Your task to perform on an android device: Search for "razer blade" on target, select the first entry, add it to the cart, then select checkout. Image 0: 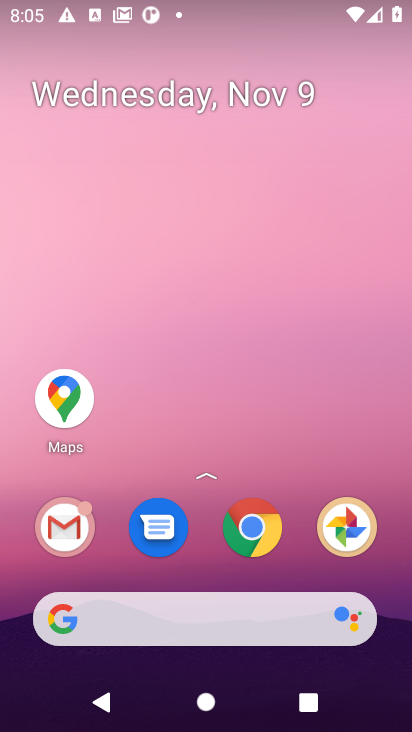
Step 0: click (254, 516)
Your task to perform on an android device: Search for "razer blade" on target, select the first entry, add it to the cart, then select checkout. Image 1: 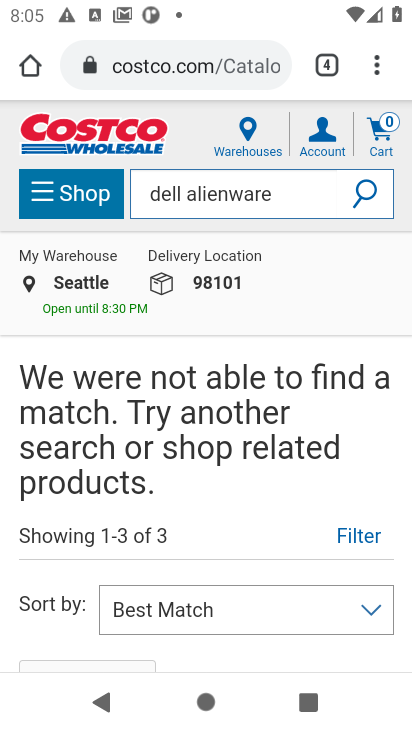
Step 1: click (200, 63)
Your task to perform on an android device: Search for "razer blade" on target, select the first entry, add it to the cart, then select checkout. Image 2: 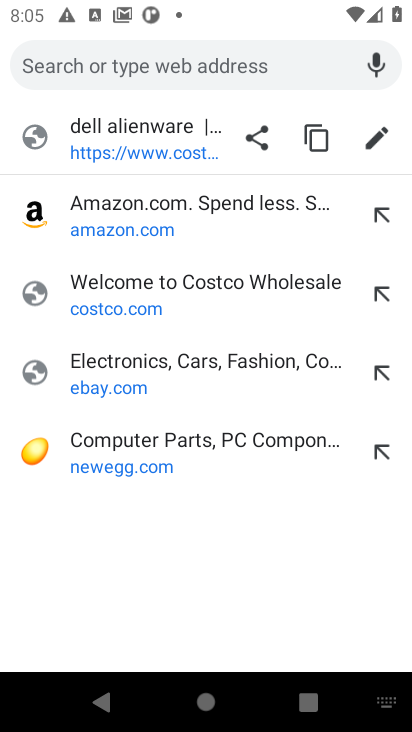
Step 2: type "target.com"
Your task to perform on an android device: Search for "razer blade" on target, select the first entry, add it to the cart, then select checkout. Image 3: 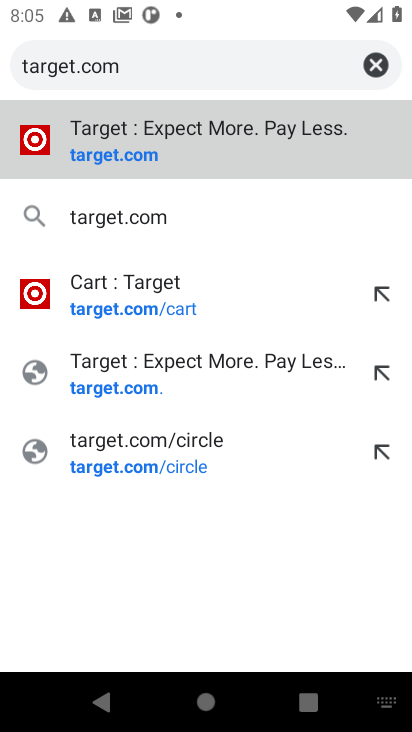
Step 3: click (147, 155)
Your task to perform on an android device: Search for "razer blade" on target, select the first entry, add it to the cart, then select checkout. Image 4: 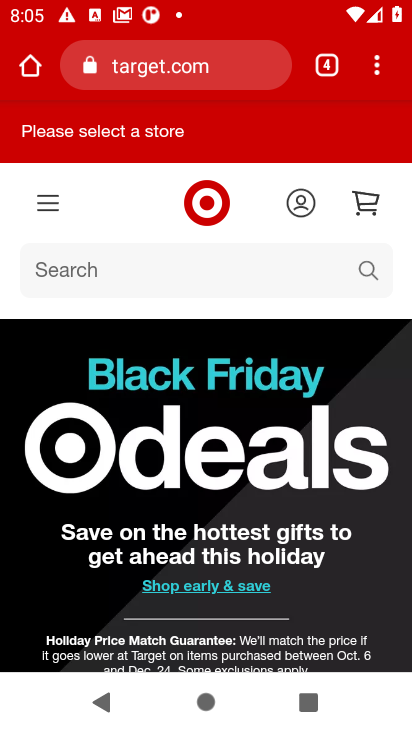
Step 4: click (366, 263)
Your task to perform on an android device: Search for "razer blade" on target, select the first entry, add it to the cart, then select checkout. Image 5: 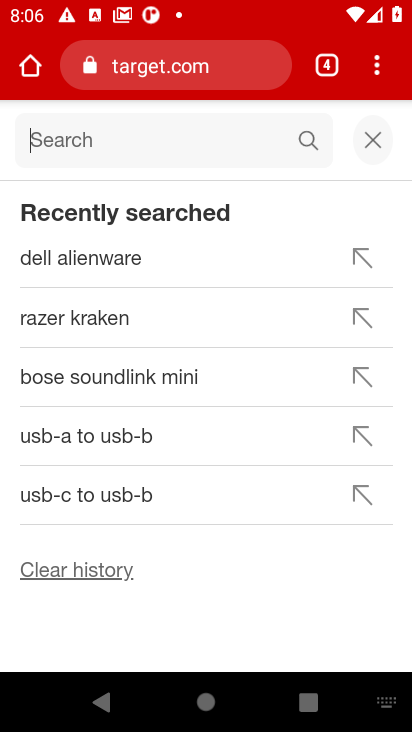
Step 5: click (79, 153)
Your task to perform on an android device: Search for "razer blade" on target, select the first entry, add it to the cart, then select checkout. Image 6: 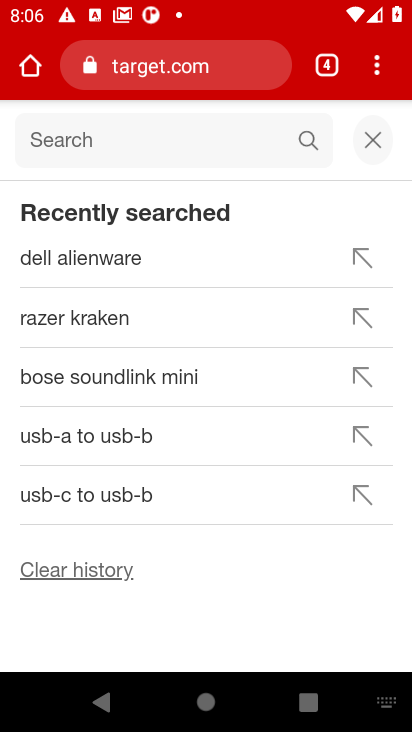
Step 6: type "razer blade"
Your task to perform on an android device: Search for "razer blade" on target, select the first entry, add it to the cart, then select checkout. Image 7: 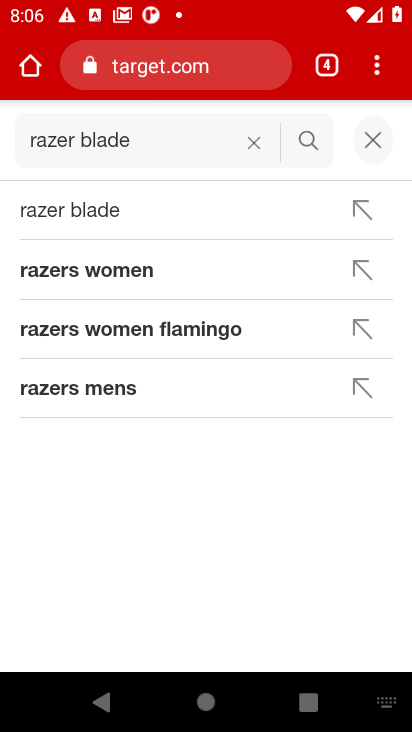
Step 7: click (94, 211)
Your task to perform on an android device: Search for "razer blade" on target, select the first entry, add it to the cart, then select checkout. Image 8: 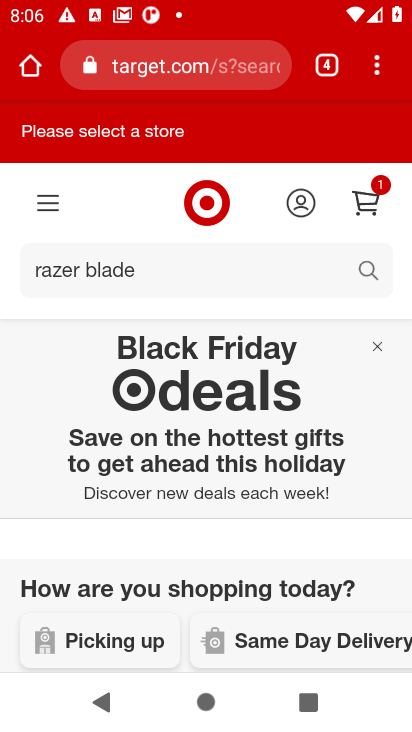
Step 8: task complete